Your task to perform on an android device: Open location settings Image 0: 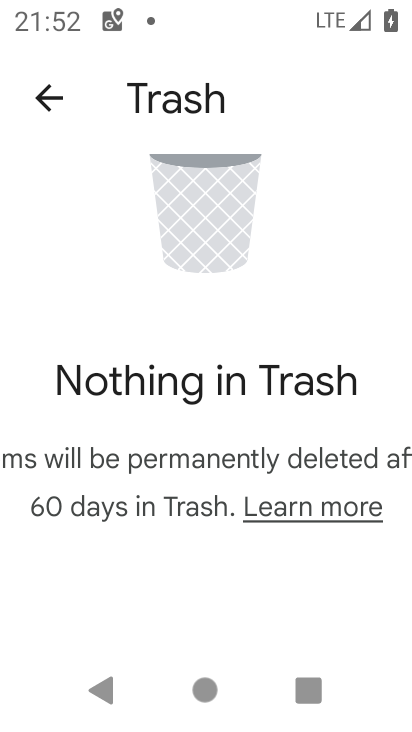
Step 0: drag from (185, 597) to (241, 23)
Your task to perform on an android device: Open location settings Image 1: 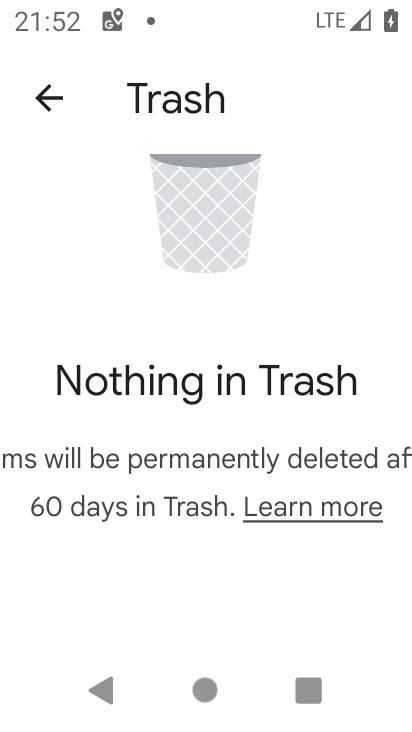
Step 1: press home button
Your task to perform on an android device: Open location settings Image 2: 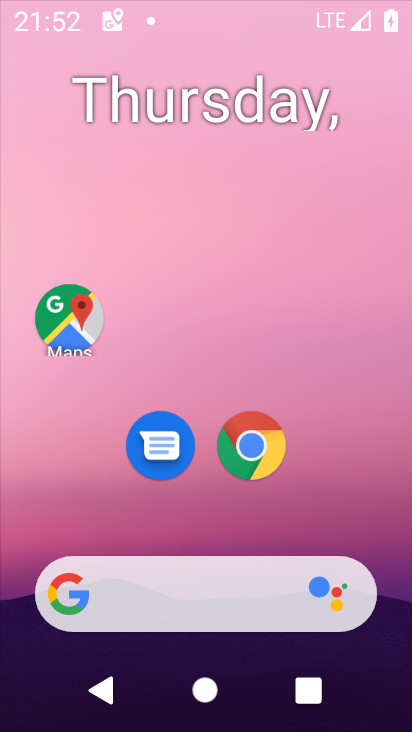
Step 2: drag from (223, 572) to (322, 169)
Your task to perform on an android device: Open location settings Image 3: 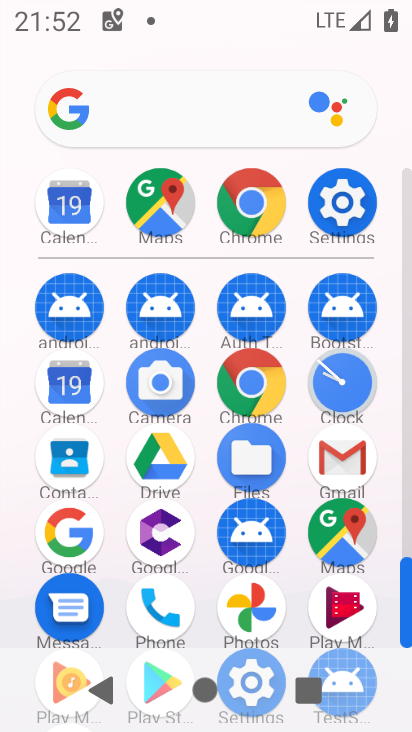
Step 3: click (339, 204)
Your task to perform on an android device: Open location settings Image 4: 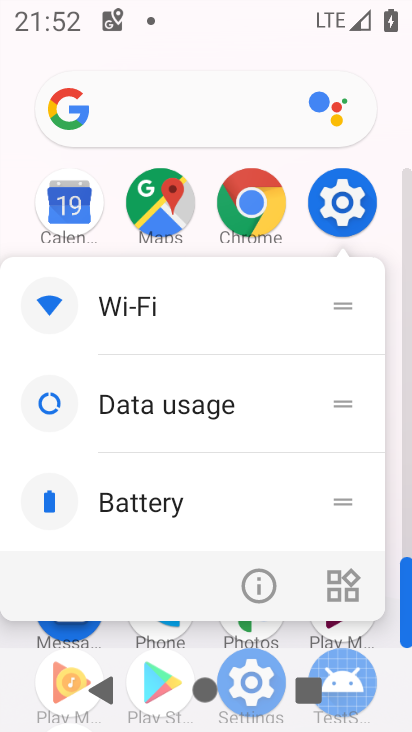
Step 4: click (255, 578)
Your task to perform on an android device: Open location settings Image 5: 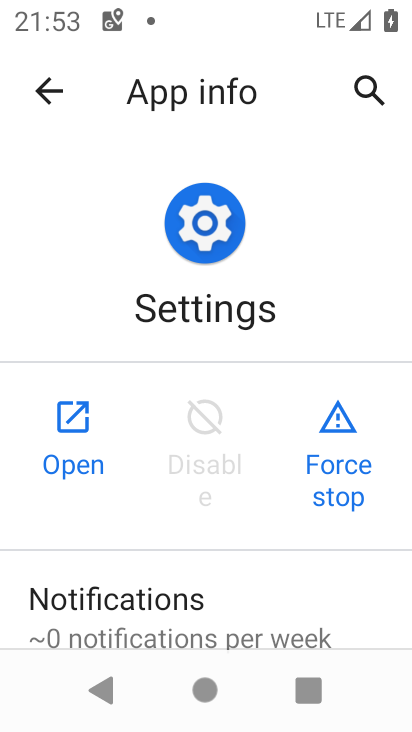
Step 5: click (79, 420)
Your task to perform on an android device: Open location settings Image 6: 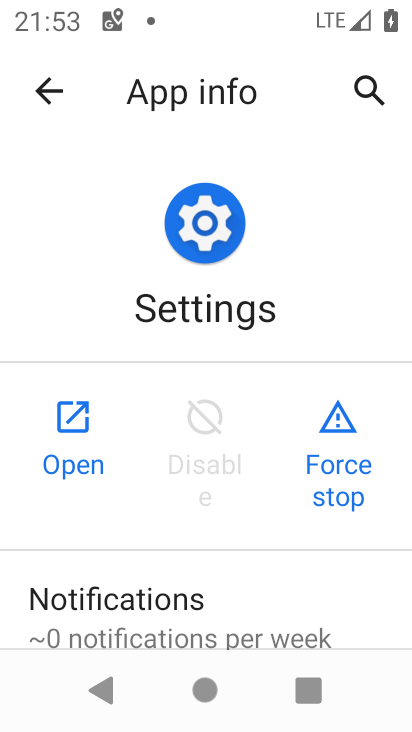
Step 6: click (78, 420)
Your task to perform on an android device: Open location settings Image 7: 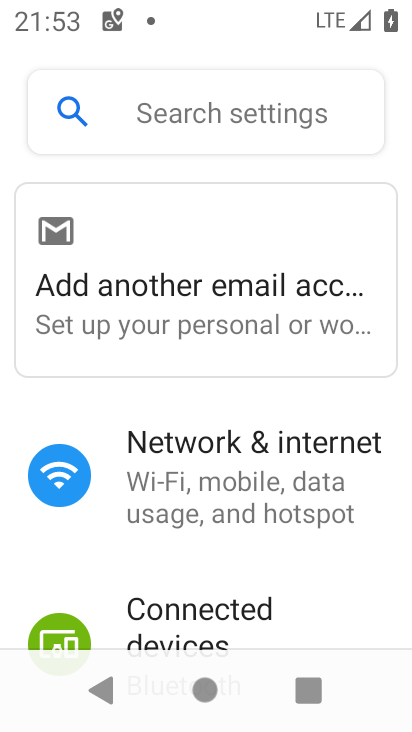
Step 7: drag from (274, 560) to (408, 26)
Your task to perform on an android device: Open location settings Image 8: 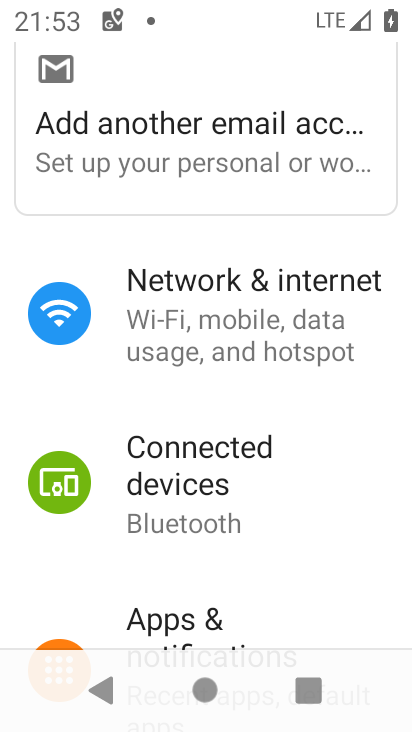
Step 8: drag from (255, 539) to (289, 160)
Your task to perform on an android device: Open location settings Image 9: 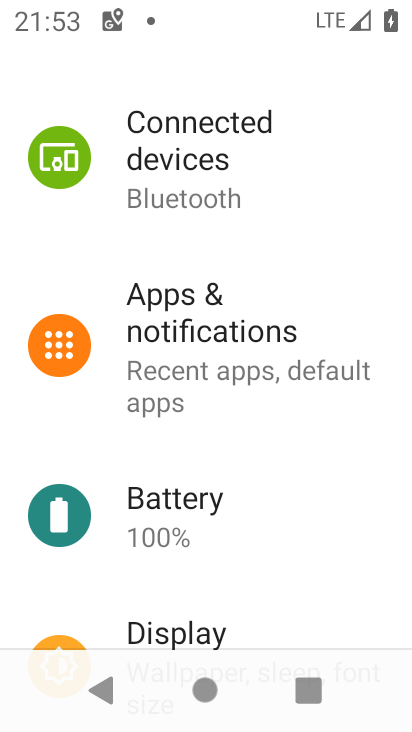
Step 9: drag from (254, 530) to (290, 100)
Your task to perform on an android device: Open location settings Image 10: 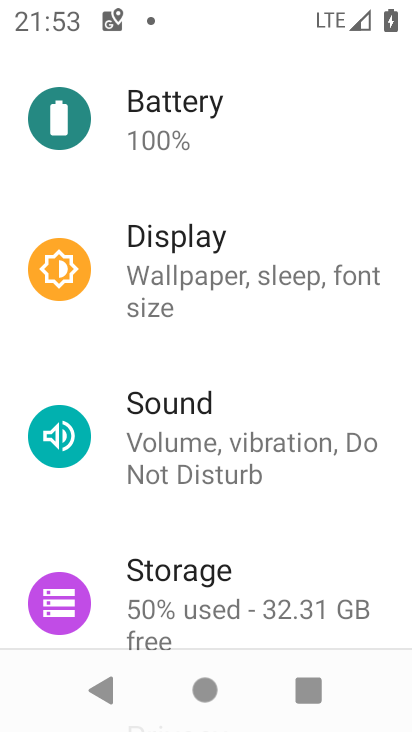
Step 10: drag from (254, 530) to (252, 103)
Your task to perform on an android device: Open location settings Image 11: 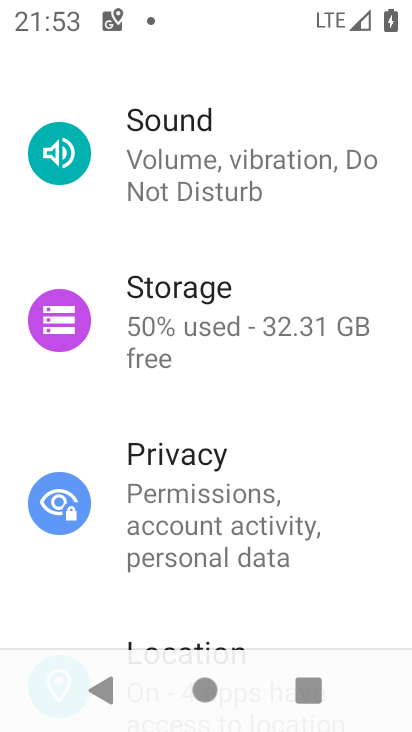
Step 11: drag from (245, 276) to (334, 614)
Your task to perform on an android device: Open location settings Image 12: 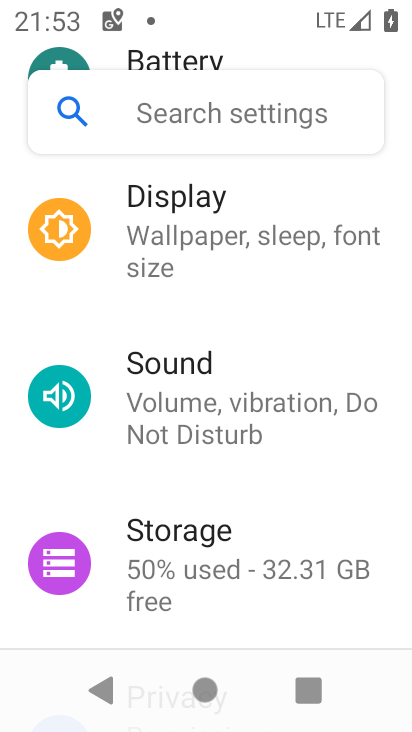
Step 12: drag from (269, 557) to (280, 116)
Your task to perform on an android device: Open location settings Image 13: 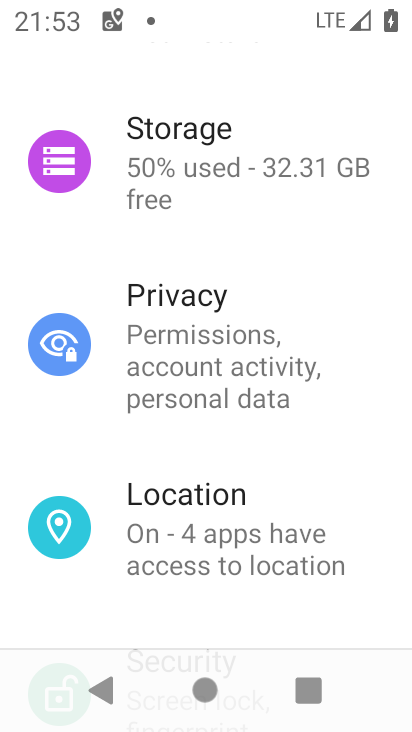
Step 13: click (209, 516)
Your task to perform on an android device: Open location settings Image 14: 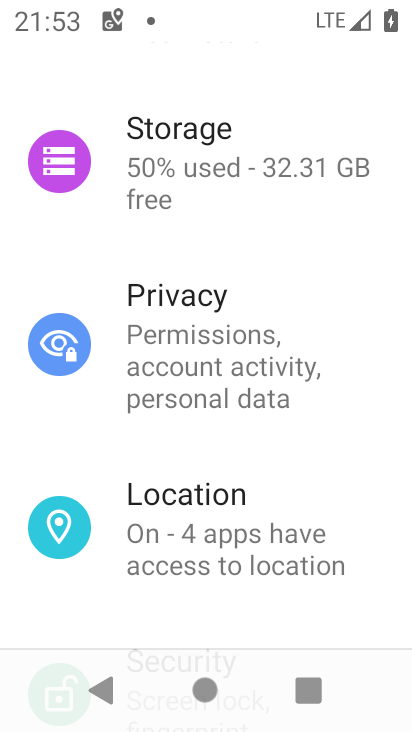
Step 14: click (209, 516)
Your task to perform on an android device: Open location settings Image 15: 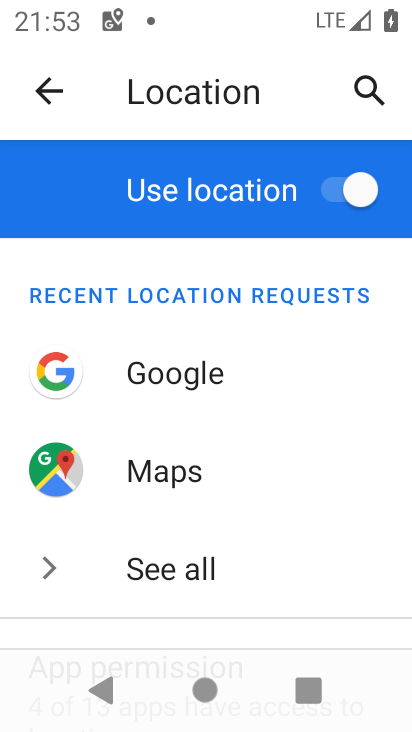
Step 15: task complete